Your task to perform on an android device: stop showing notifications on the lock screen Image 0: 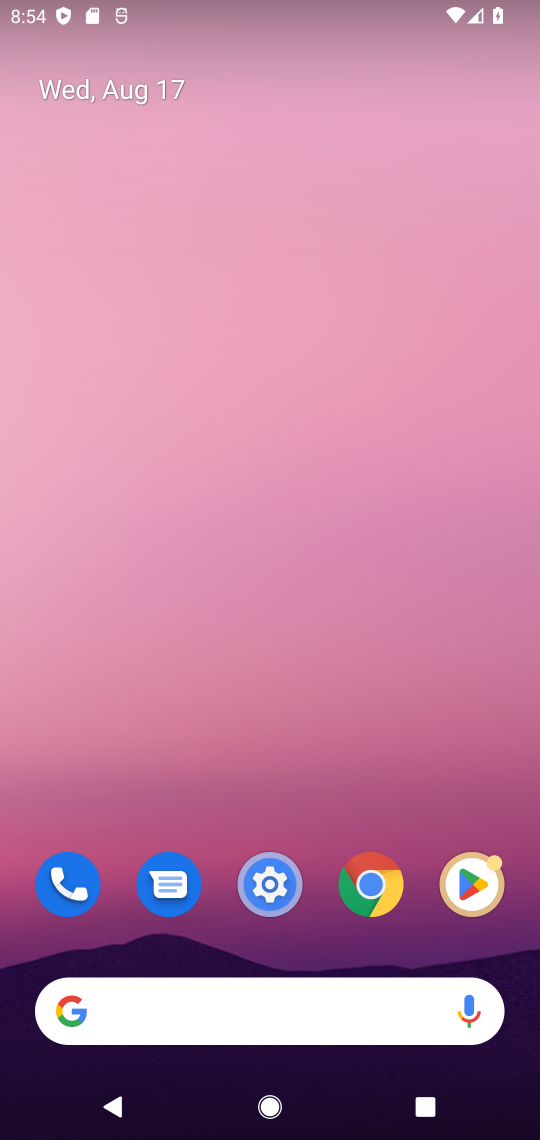
Step 0: click (252, 874)
Your task to perform on an android device: stop showing notifications on the lock screen Image 1: 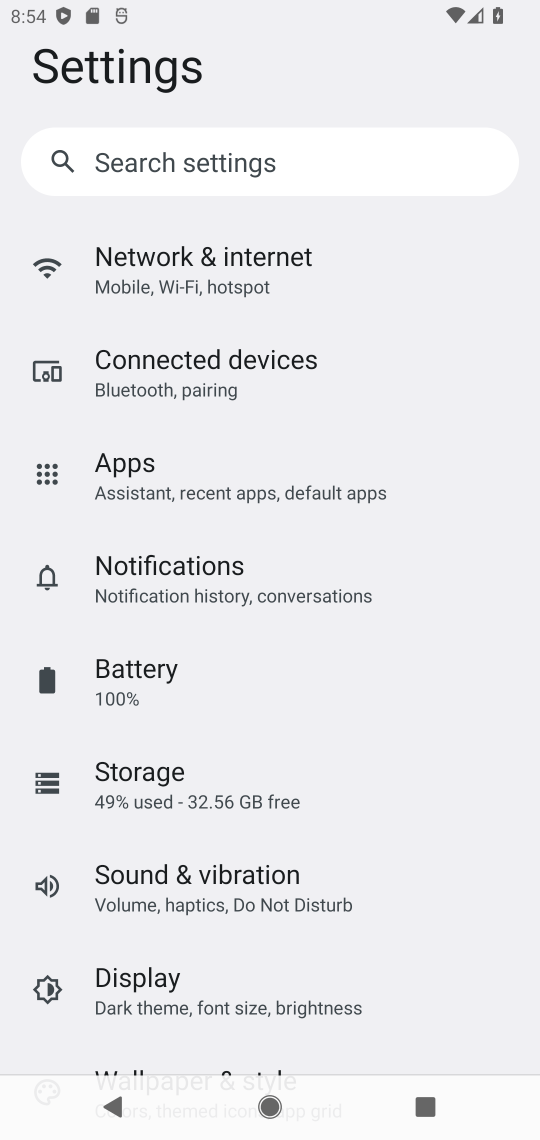
Step 1: click (209, 569)
Your task to perform on an android device: stop showing notifications on the lock screen Image 2: 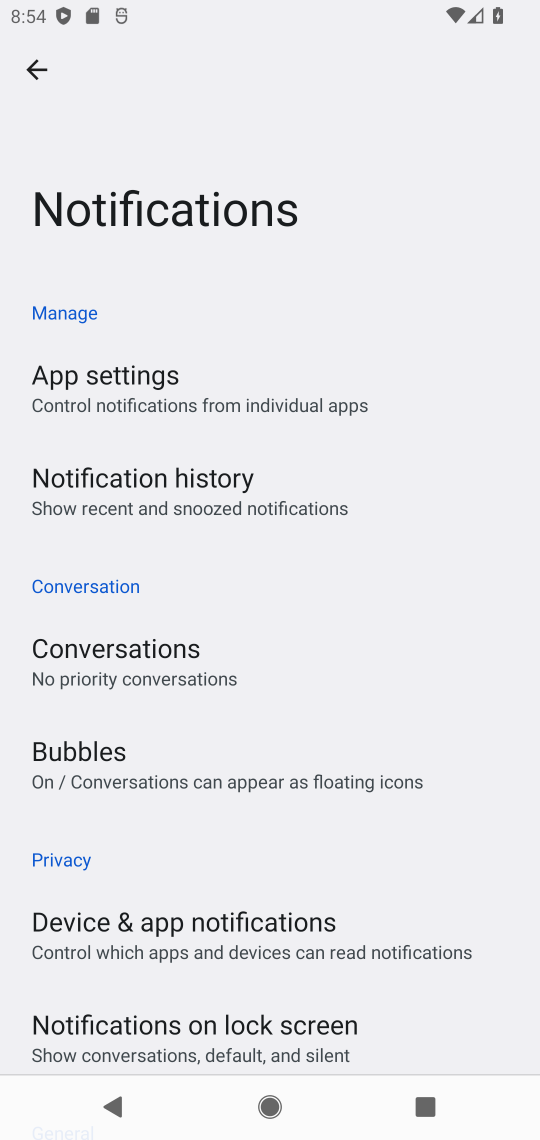
Step 2: drag from (248, 748) to (262, 401)
Your task to perform on an android device: stop showing notifications on the lock screen Image 3: 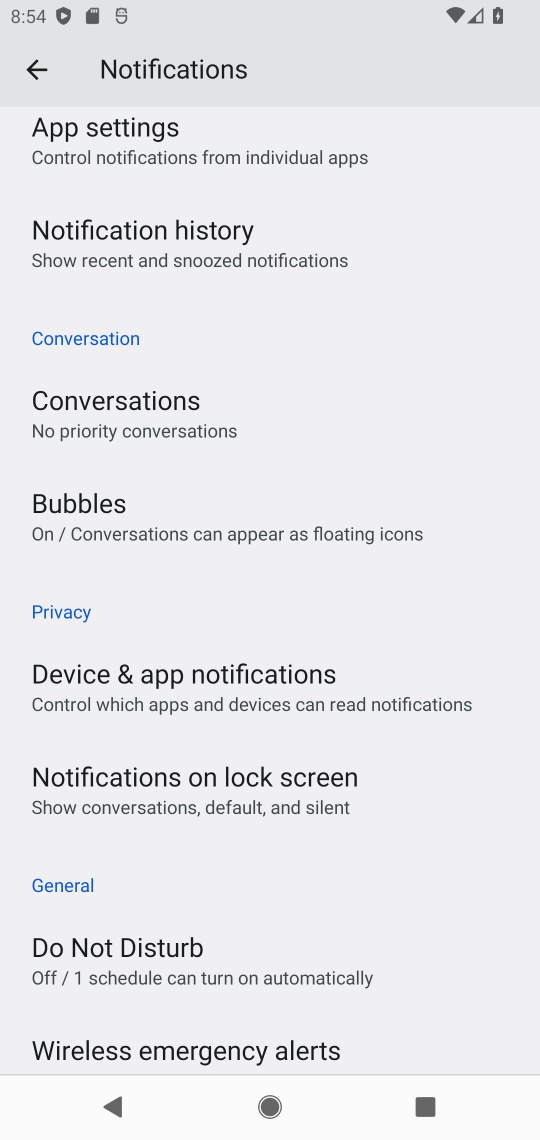
Step 3: click (303, 782)
Your task to perform on an android device: stop showing notifications on the lock screen Image 4: 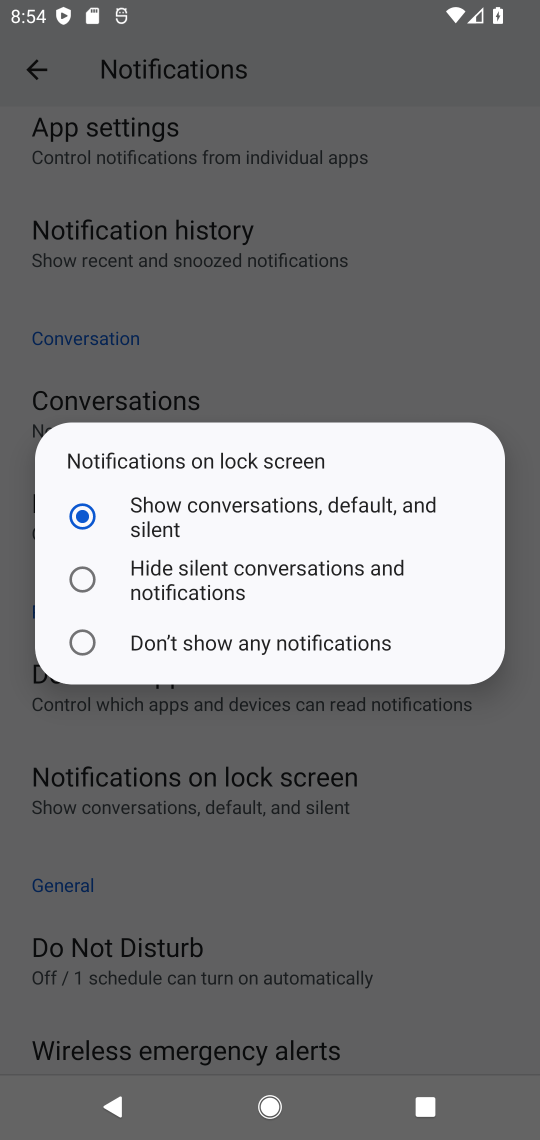
Step 4: click (227, 650)
Your task to perform on an android device: stop showing notifications on the lock screen Image 5: 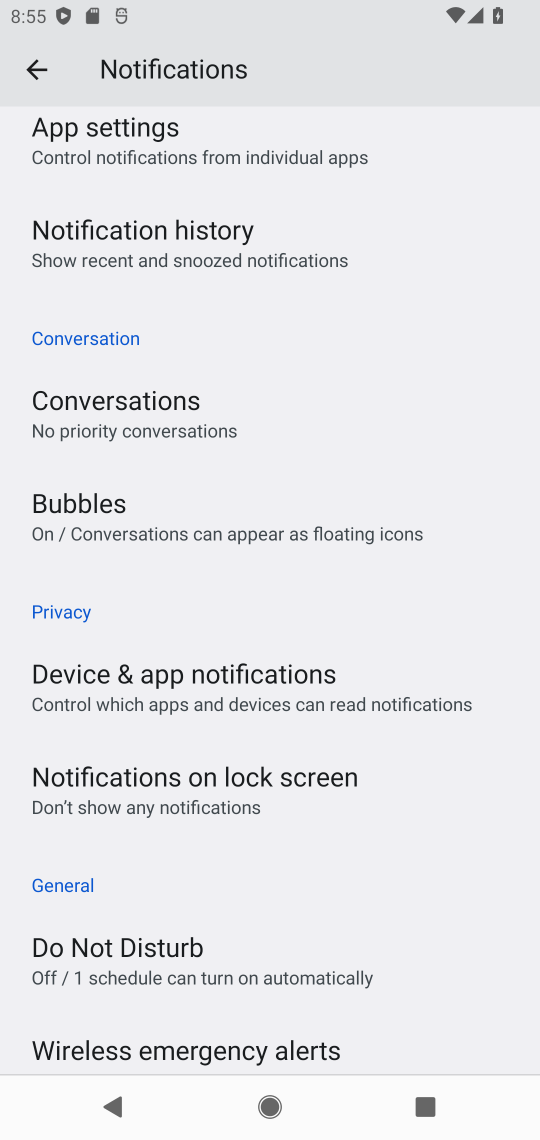
Step 5: click (306, 808)
Your task to perform on an android device: stop showing notifications on the lock screen Image 6: 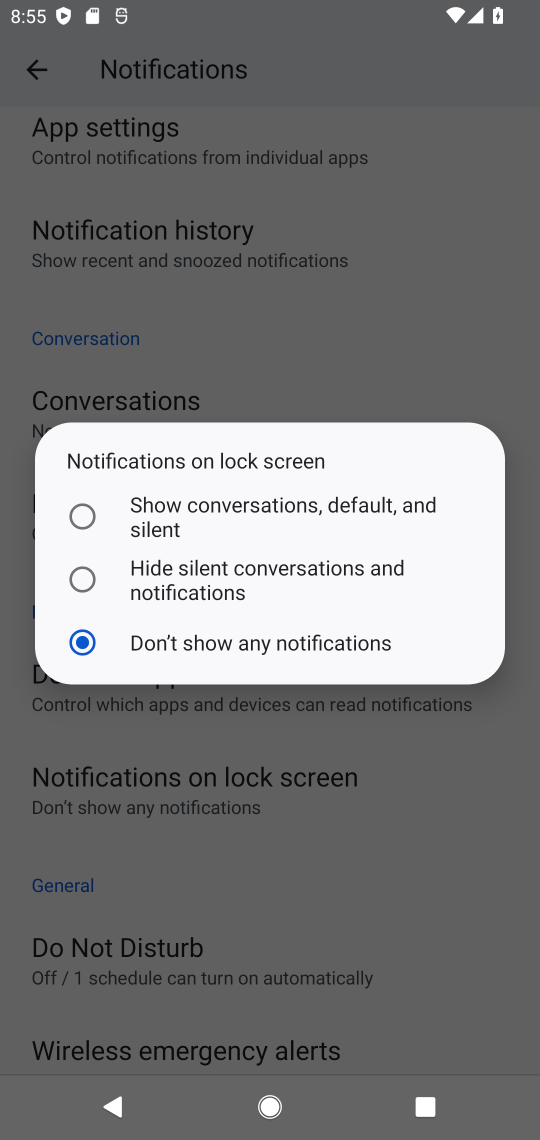
Step 6: task complete